Your task to perform on an android device: Go to sound settings Image 0: 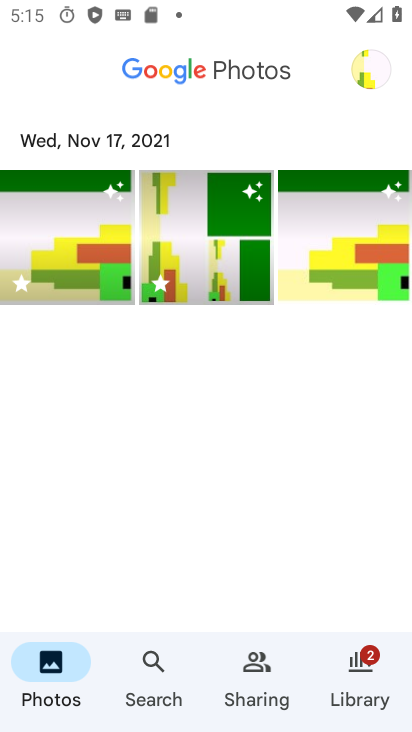
Step 0: press home button
Your task to perform on an android device: Go to sound settings Image 1: 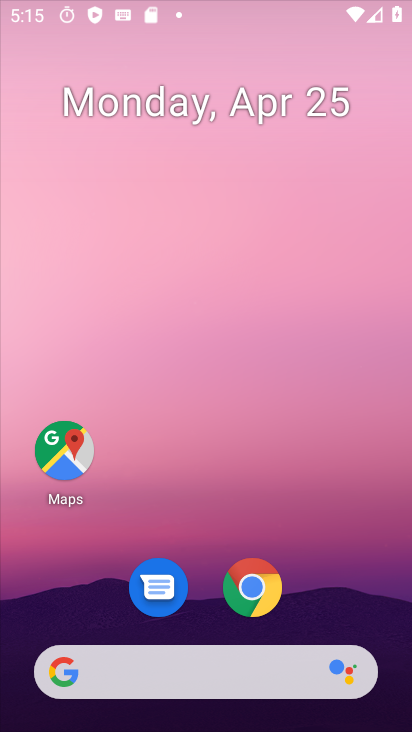
Step 1: drag from (302, 519) to (322, 63)
Your task to perform on an android device: Go to sound settings Image 2: 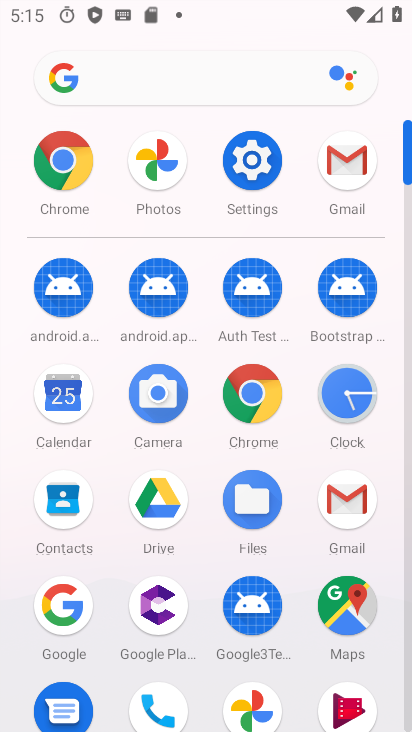
Step 2: click (263, 162)
Your task to perform on an android device: Go to sound settings Image 3: 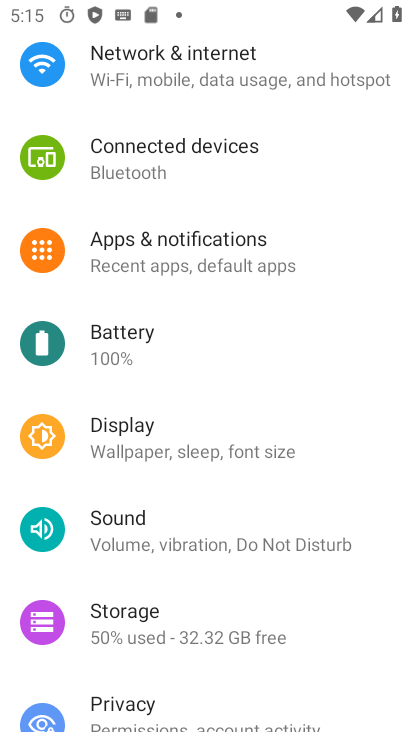
Step 3: click (175, 534)
Your task to perform on an android device: Go to sound settings Image 4: 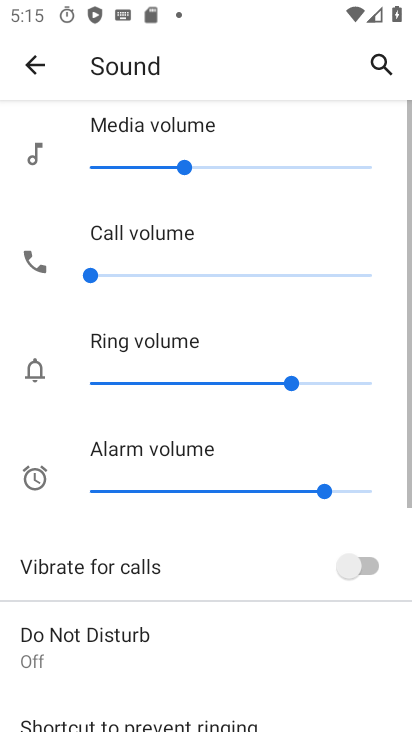
Step 4: task complete